Your task to perform on an android device: Open calendar and show me the fourth week of next month Image 0: 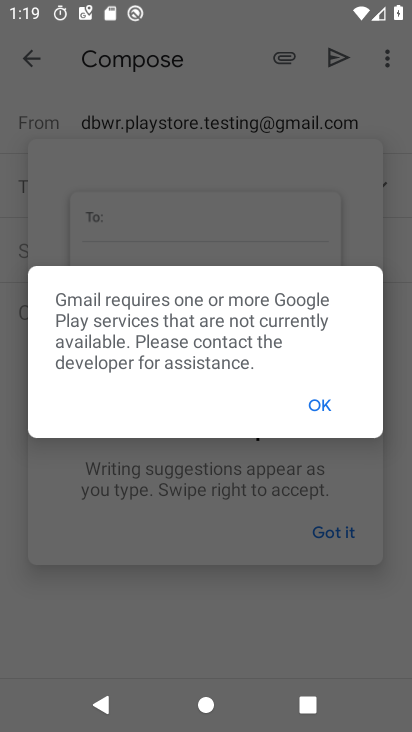
Step 0: press home button
Your task to perform on an android device: Open calendar and show me the fourth week of next month Image 1: 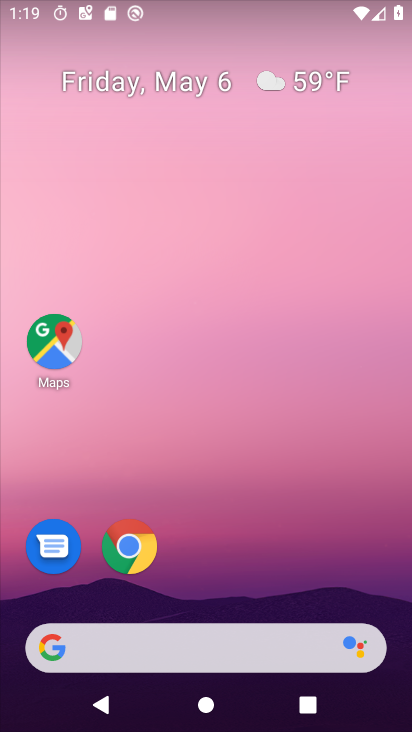
Step 1: drag from (282, 588) to (285, 136)
Your task to perform on an android device: Open calendar and show me the fourth week of next month Image 2: 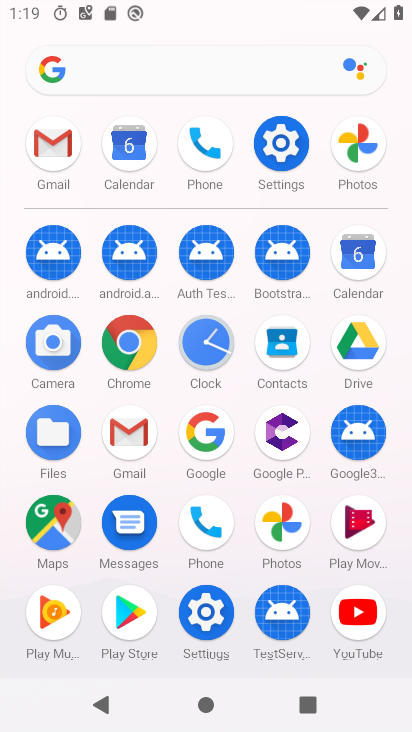
Step 2: click (364, 263)
Your task to perform on an android device: Open calendar and show me the fourth week of next month Image 3: 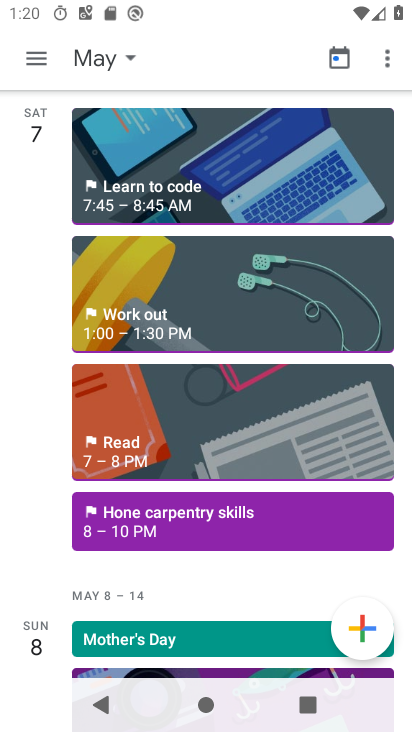
Step 3: click (125, 58)
Your task to perform on an android device: Open calendar and show me the fourth week of next month Image 4: 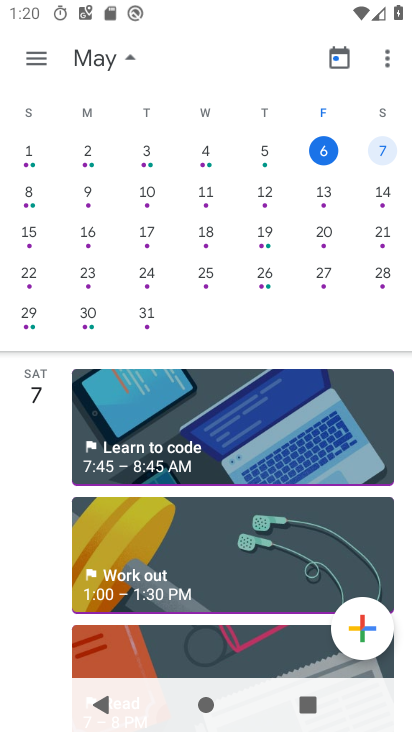
Step 4: drag from (323, 236) to (4, 214)
Your task to perform on an android device: Open calendar and show me the fourth week of next month Image 5: 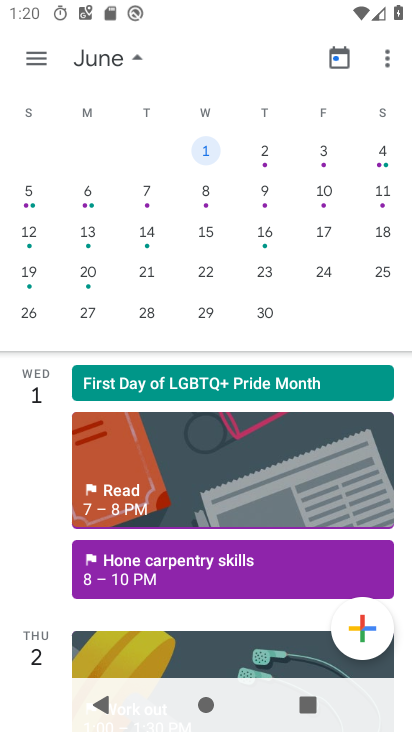
Step 5: click (33, 269)
Your task to perform on an android device: Open calendar and show me the fourth week of next month Image 6: 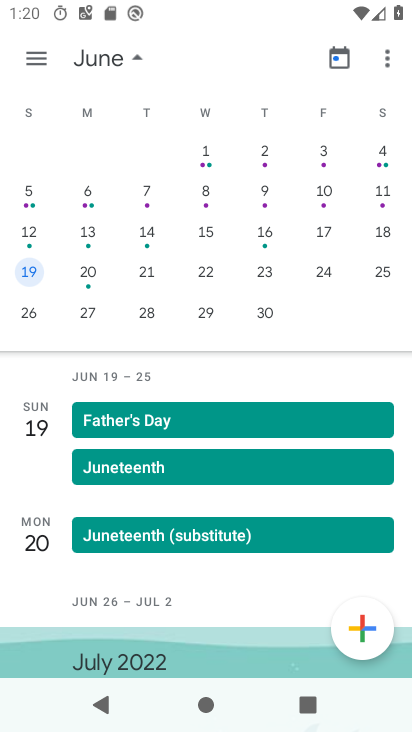
Step 6: click (36, 63)
Your task to perform on an android device: Open calendar and show me the fourth week of next month Image 7: 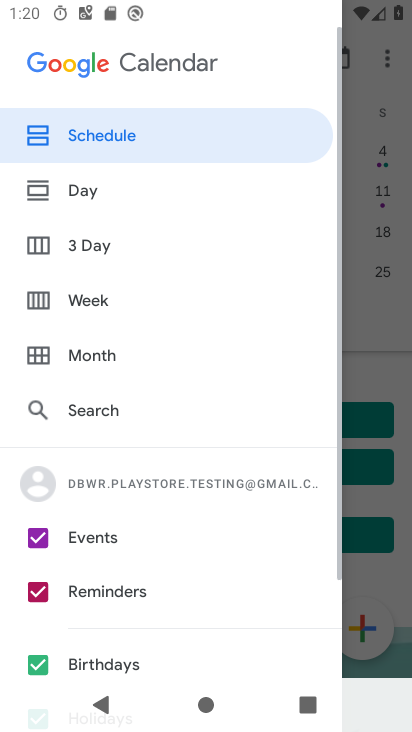
Step 7: click (85, 297)
Your task to perform on an android device: Open calendar and show me the fourth week of next month Image 8: 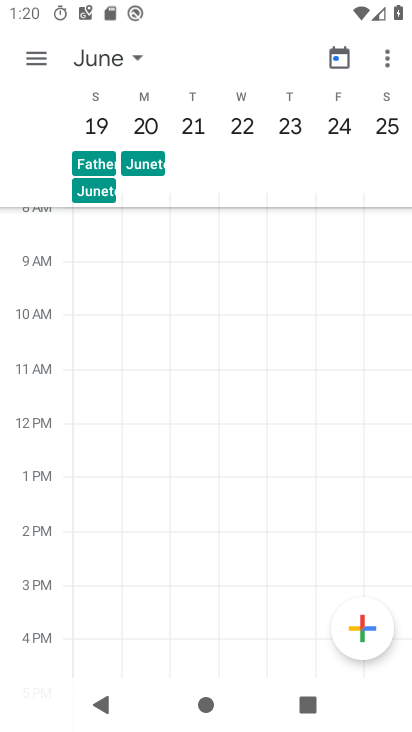
Step 8: task complete